Your task to perform on an android device: change the upload size in google photos Image 0: 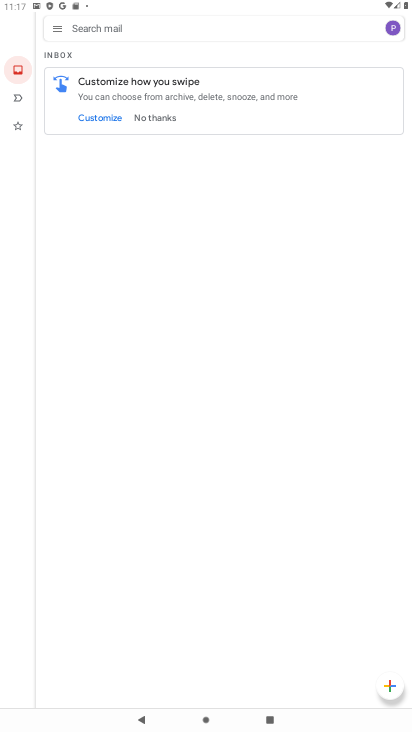
Step 0: press home button
Your task to perform on an android device: change the upload size in google photos Image 1: 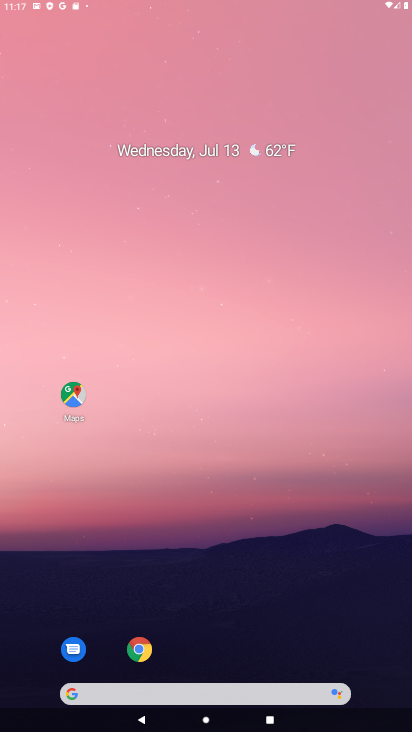
Step 1: drag from (386, 537) to (239, 30)
Your task to perform on an android device: change the upload size in google photos Image 2: 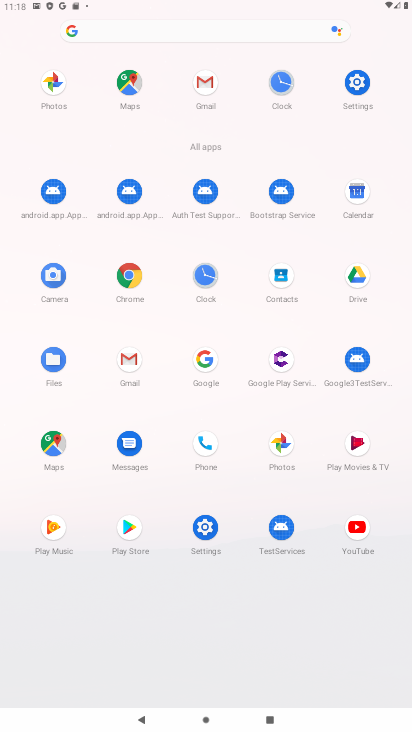
Step 2: click (282, 439)
Your task to perform on an android device: change the upload size in google photos Image 3: 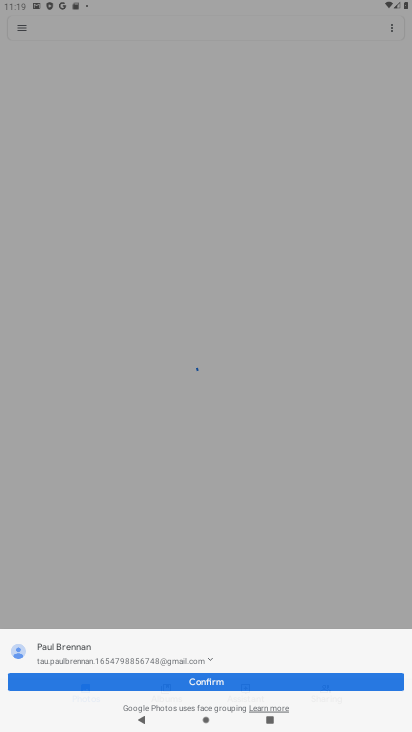
Step 3: click (23, 22)
Your task to perform on an android device: change the upload size in google photos Image 4: 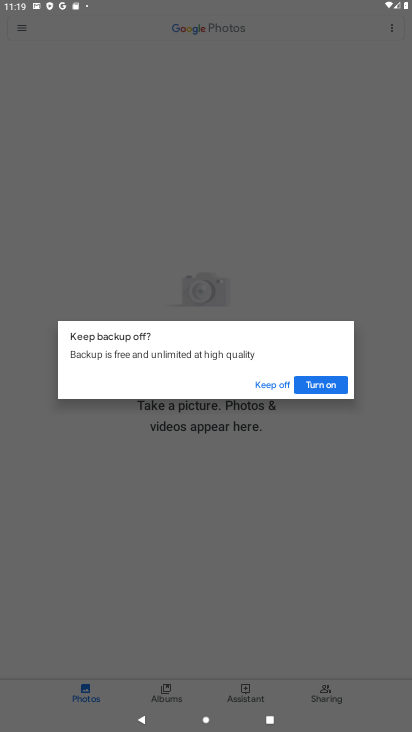
Step 4: click (323, 389)
Your task to perform on an android device: change the upload size in google photos Image 5: 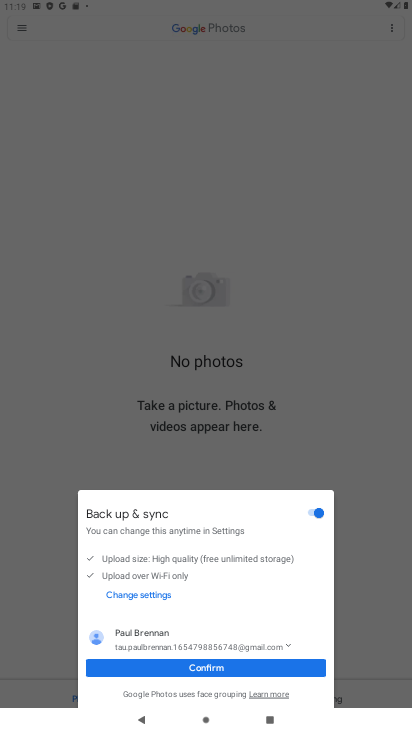
Step 5: click (185, 669)
Your task to perform on an android device: change the upload size in google photos Image 6: 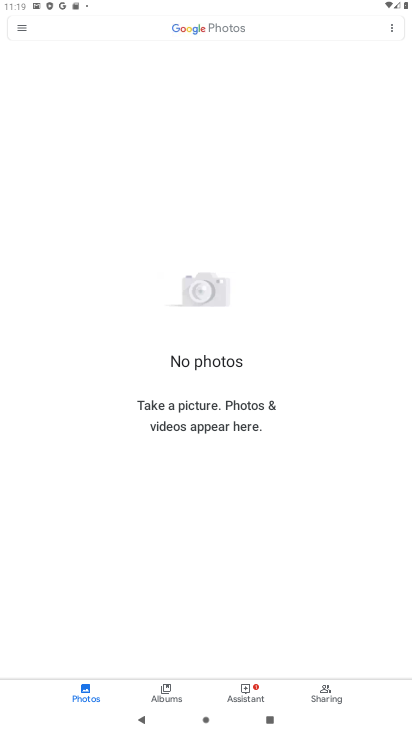
Step 6: click (28, 29)
Your task to perform on an android device: change the upload size in google photos Image 7: 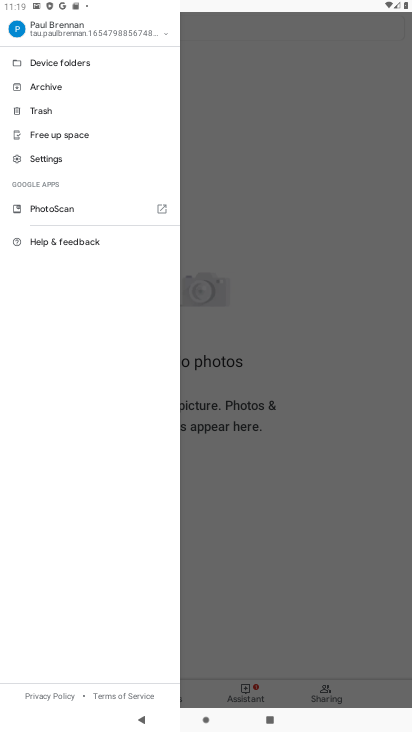
Step 7: click (47, 150)
Your task to perform on an android device: change the upload size in google photos Image 8: 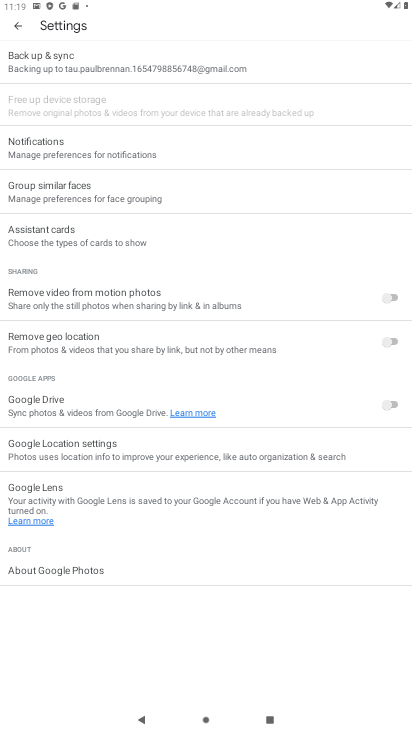
Step 8: click (165, 63)
Your task to perform on an android device: change the upload size in google photos Image 9: 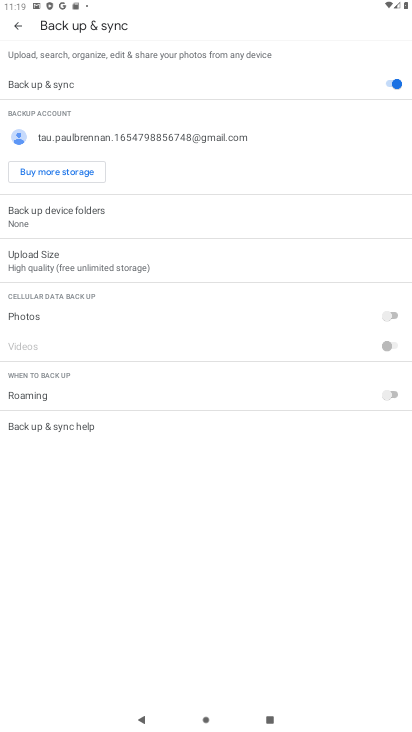
Step 9: drag from (105, 212) to (142, 273)
Your task to perform on an android device: change the upload size in google photos Image 10: 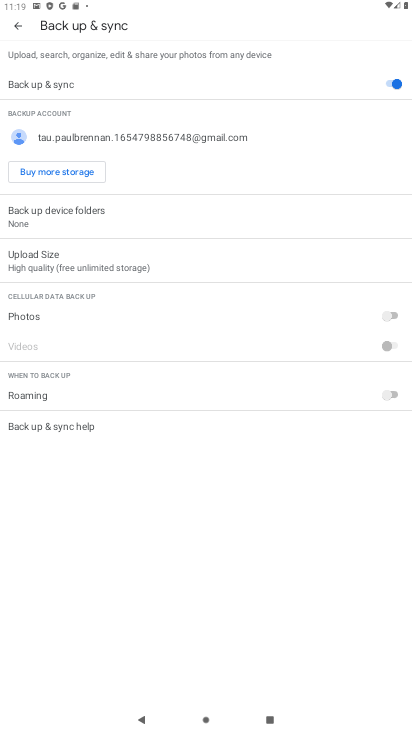
Step 10: click (142, 269)
Your task to perform on an android device: change the upload size in google photos Image 11: 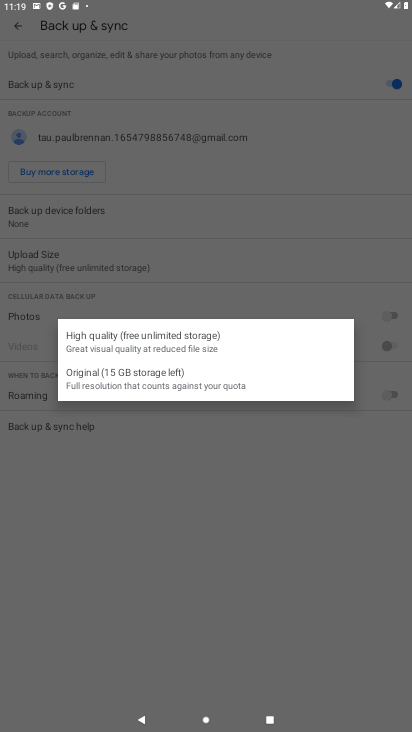
Step 11: click (139, 399)
Your task to perform on an android device: change the upload size in google photos Image 12: 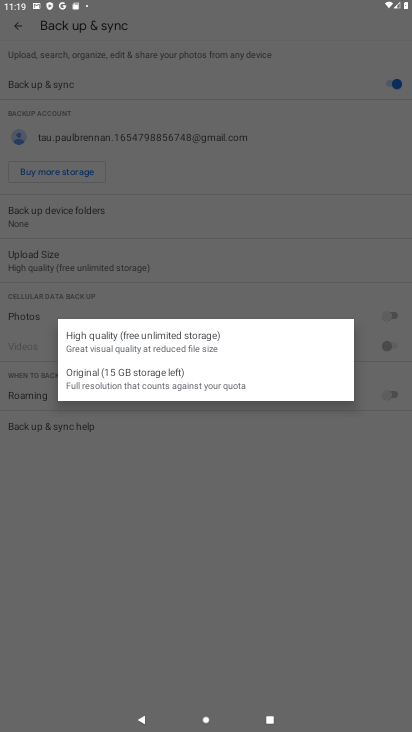
Step 12: click (146, 382)
Your task to perform on an android device: change the upload size in google photos Image 13: 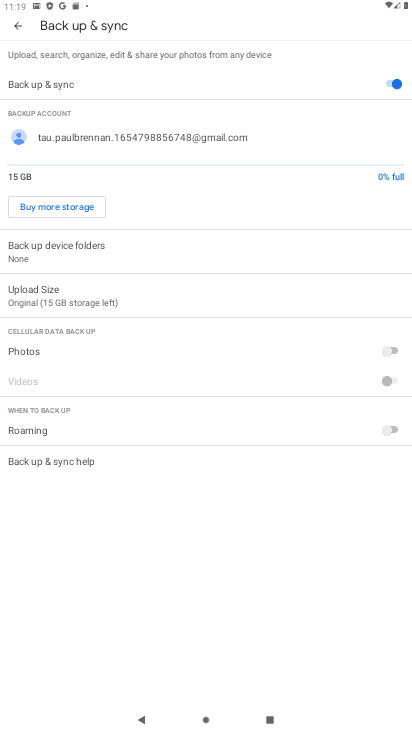
Step 13: task complete